Your task to perform on an android device: turn notification dots off Image 0: 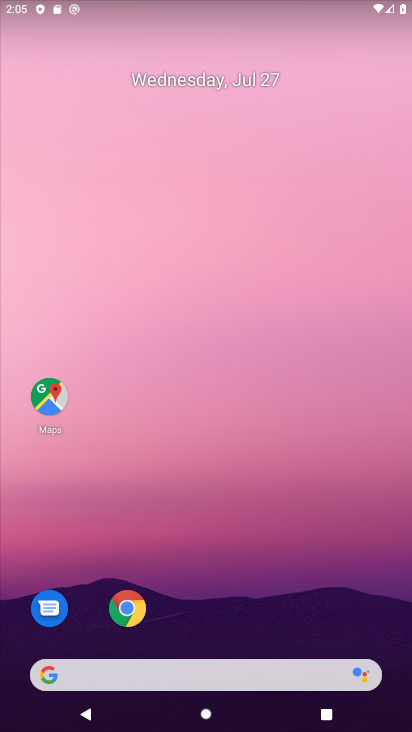
Step 0: drag from (228, 610) to (185, 419)
Your task to perform on an android device: turn notification dots off Image 1: 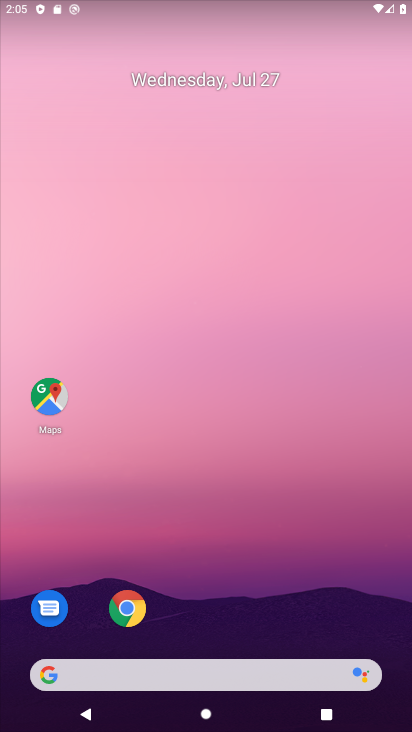
Step 1: click (214, 646)
Your task to perform on an android device: turn notification dots off Image 2: 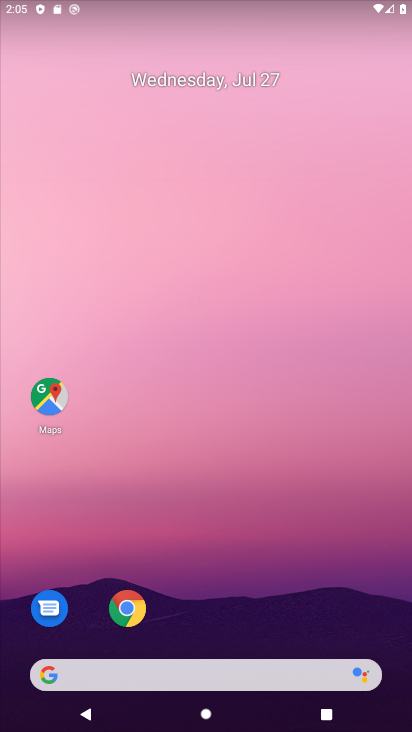
Step 2: drag from (214, 646) to (256, 8)
Your task to perform on an android device: turn notification dots off Image 3: 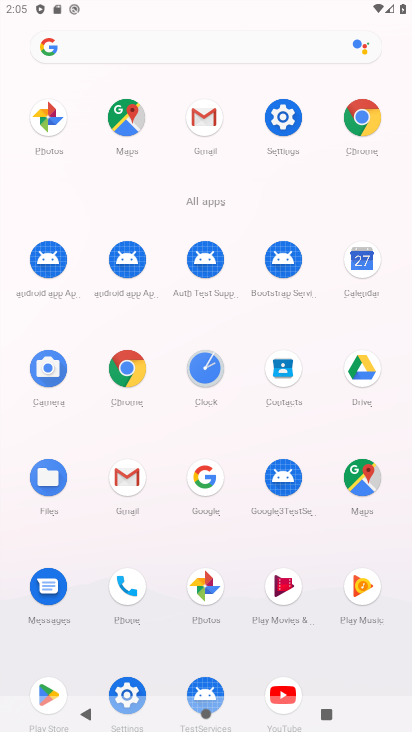
Step 3: click (288, 130)
Your task to perform on an android device: turn notification dots off Image 4: 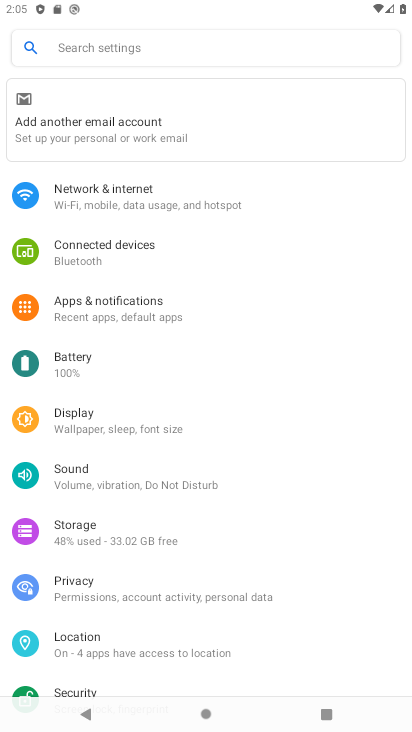
Step 4: click (135, 307)
Your task to perform on an android device: turn notification dots off Image 5: 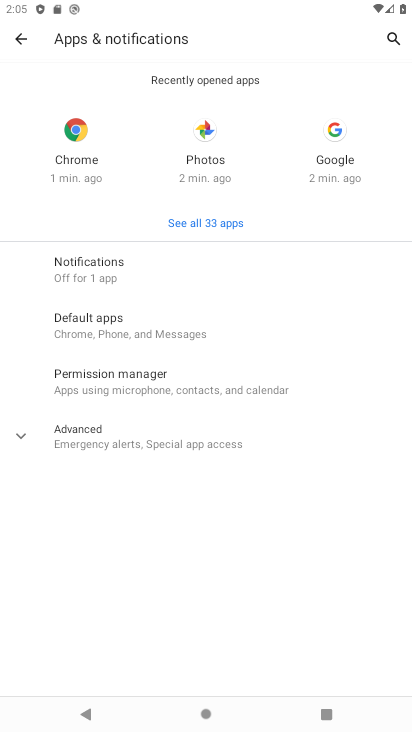
Step 5: click (150, 269)
Your task to perform on an android device: turn notification dots off Image 6: 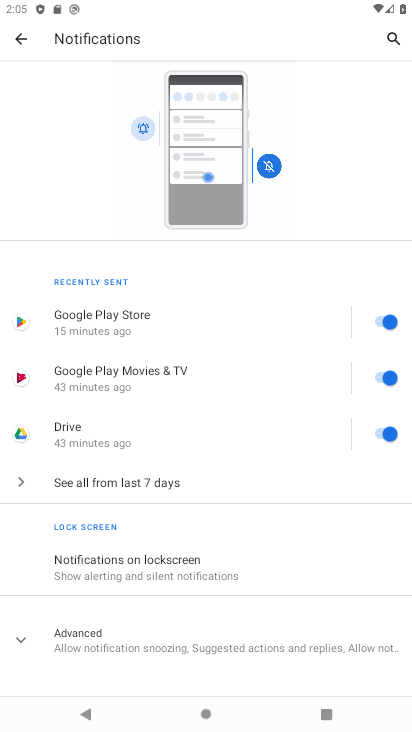
Step 6: click (154, 465)
Your task to perform on an android device: turn notification dots off Image 7: 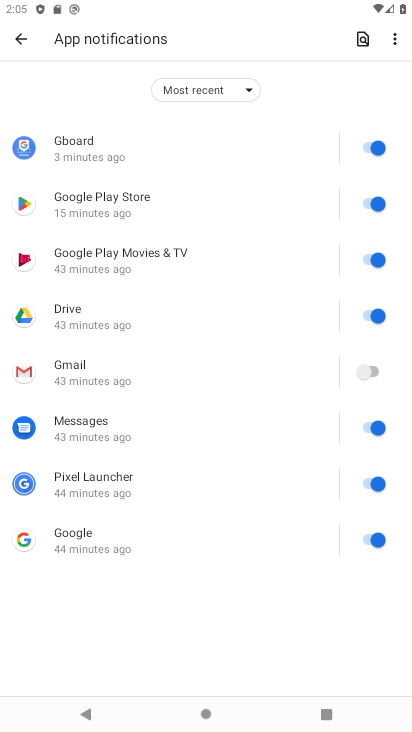
Step 7: click (9, 41)
Your task to perform on an android device: turn notification dots off Image 8: 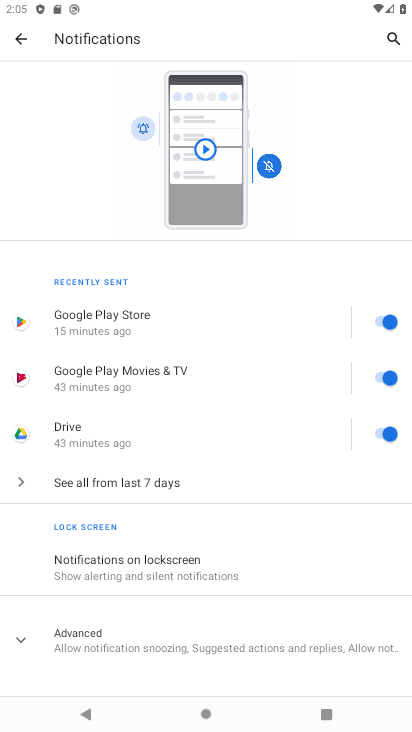
Step 8: click (20, 646)
Your task to perform on an android device: turn notification dots off Image 9: 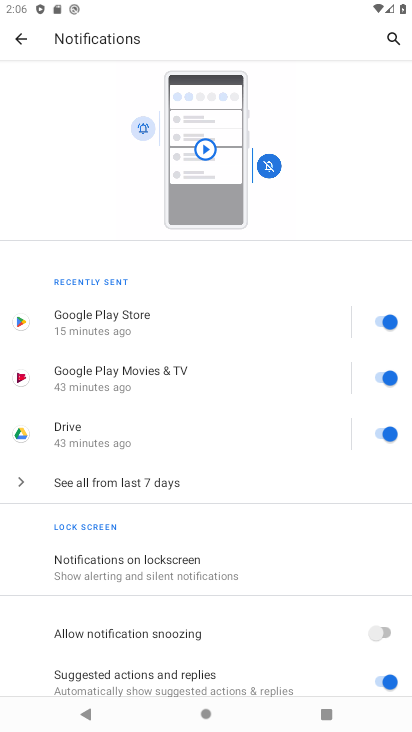
Step 9: task complete